Your task to perform on an android device: turn on javascript in the chrome app Image 0: 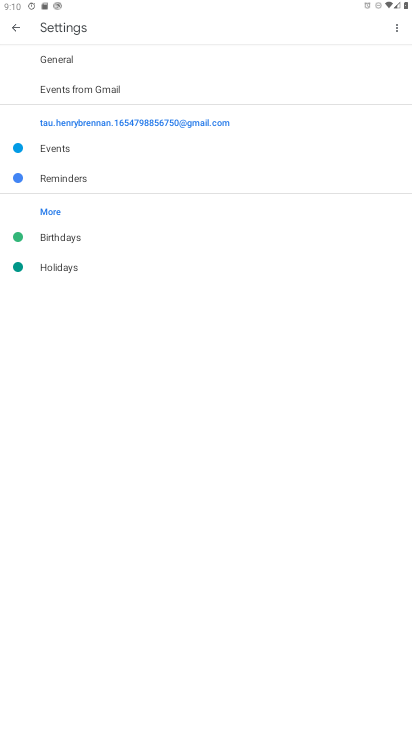
Step 0: press home button
Your task to perform on an android device: turn on javascript in the chrome app Image 1: 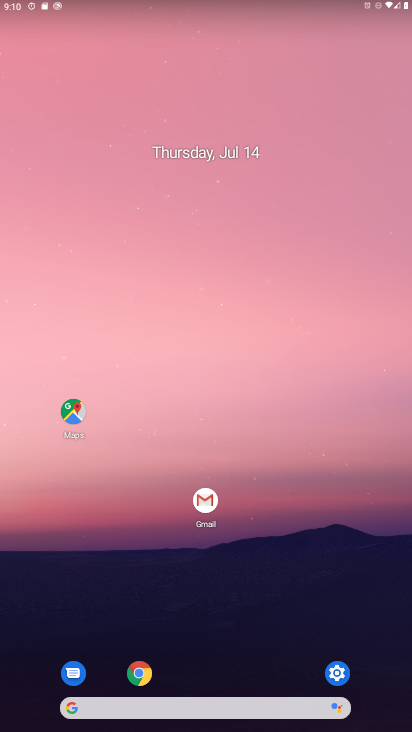
Step 1: click (140, 661)
Your task to perform on an android device: turn on javascript in the chrome app Image 2: 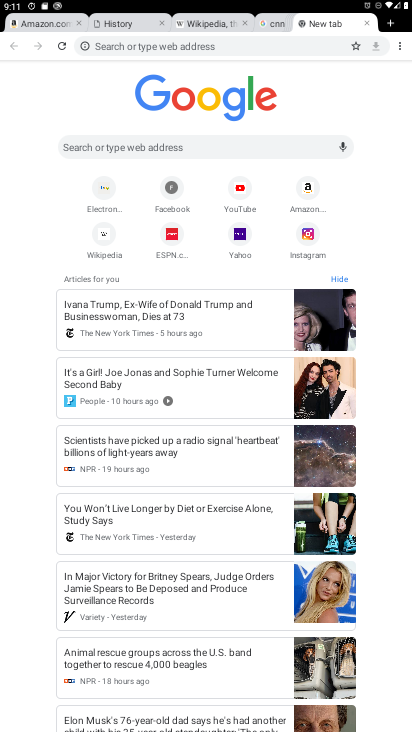
Step 2: click (403, 48)
Your task to perform on an android device: turn on javascript in the chrome app Image 3: 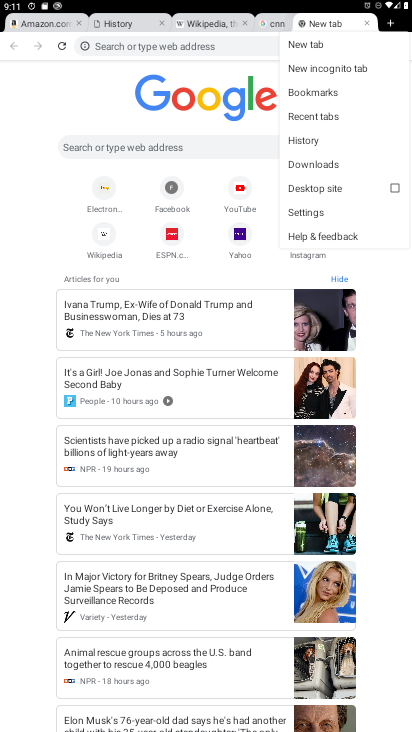
Step 3: click (307, 207)
Your task to perform on an android device: turn on javascript in the chrome app Image 4: 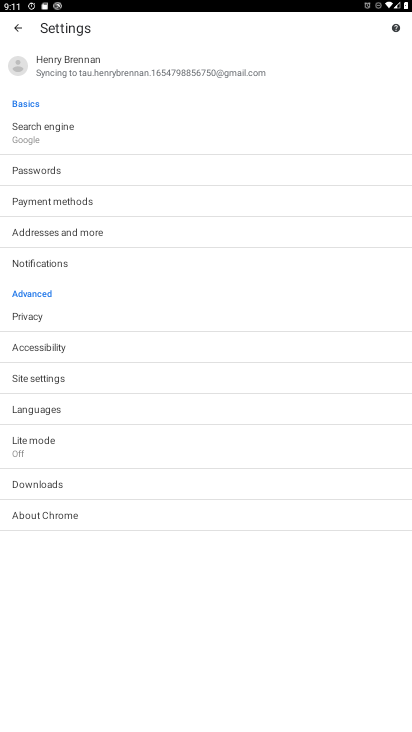
Step 4: click (59, 378)
Your task to perform on an android device: turn on javascript in the chrome app Image 5: 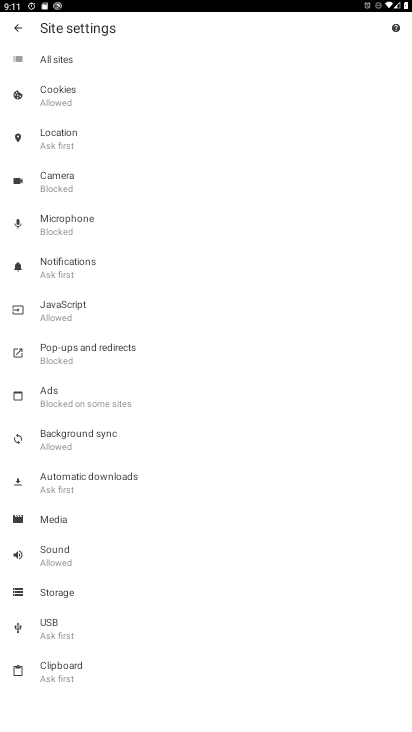
Step 5: click (90, 305)
Your task to perform on an android device: turn on javascript in the chrome app Image 6: 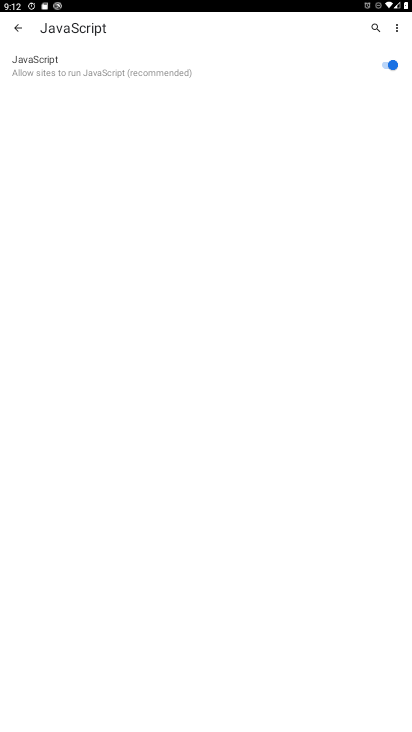
Step 6: task complete